Your task to perform on an android device: Show me the alarms in the clock app Image 0: 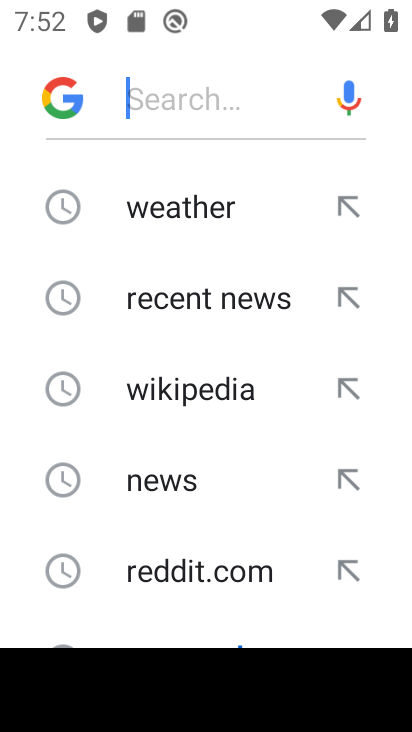
Step 0: press home button
Your task to perform on an android device: Show me the alarms in the clock app Image 1: 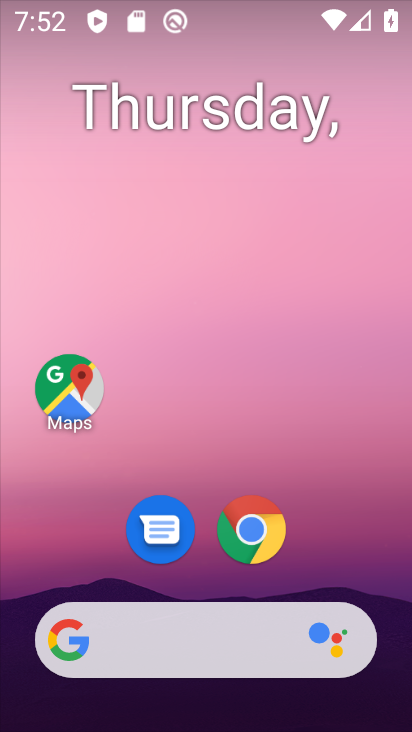
Step 1: drag from (214, 581) to (386, 2)
Your task to perform on an android device: Show me the alarms in the clock app Image 2: 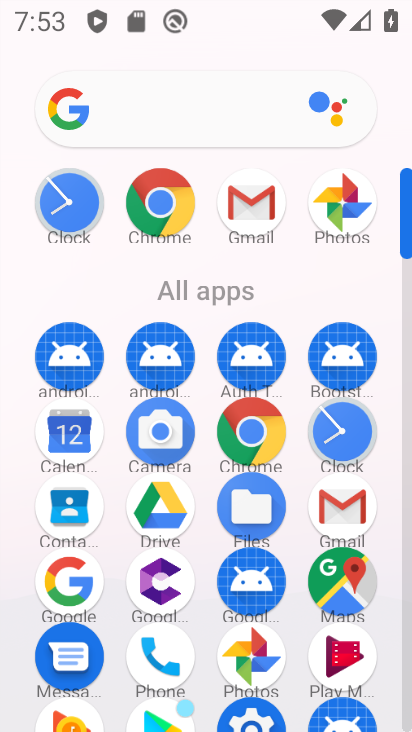
Step 2: click (57, 233)
Your task to perform on an android device: Show me the alarms in the clock app Image 3: 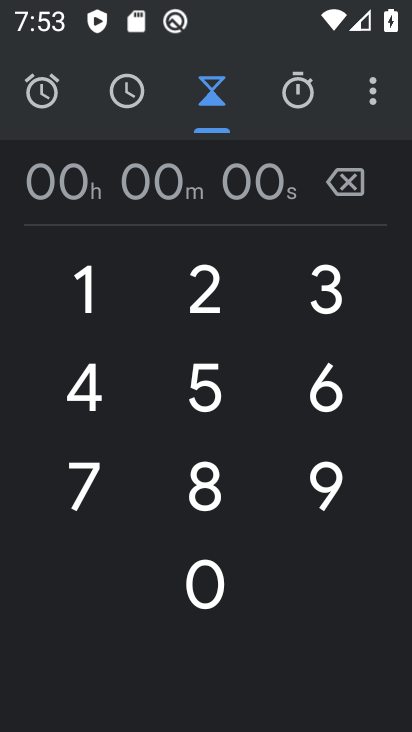
Step 3: click (55, 91)
Your task to perform on an android device: Show me the alarms in the clock app Image 4: 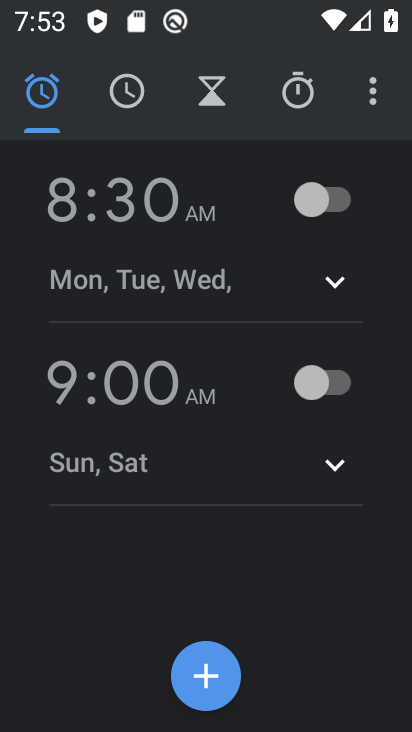
Step 4: task complete